Your task to perform on an android device: change notifications settings Image 0: 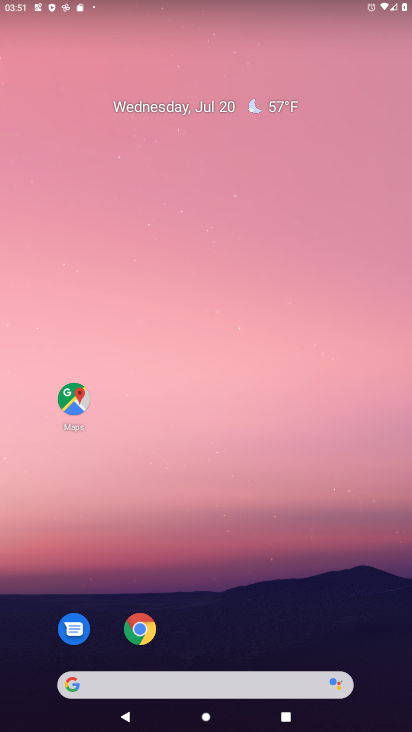
Step 0: drag from (389, 654) to (330, 61)
Your task to perform on an android device: change notifications settings Image 1: 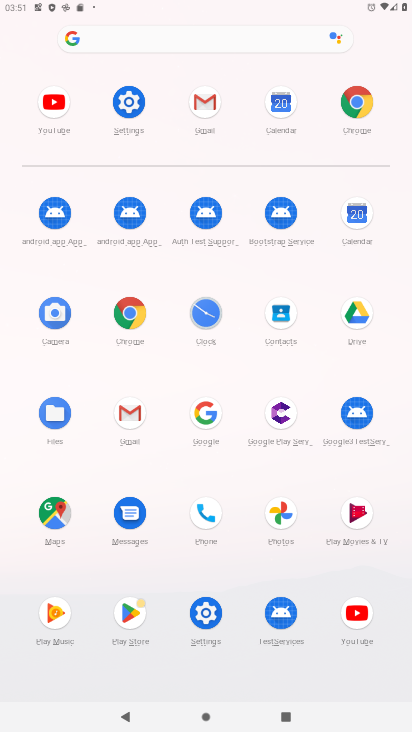
Step 1: click (205, 612)
Your task to perform on an android device: change notifications settings Image 2: 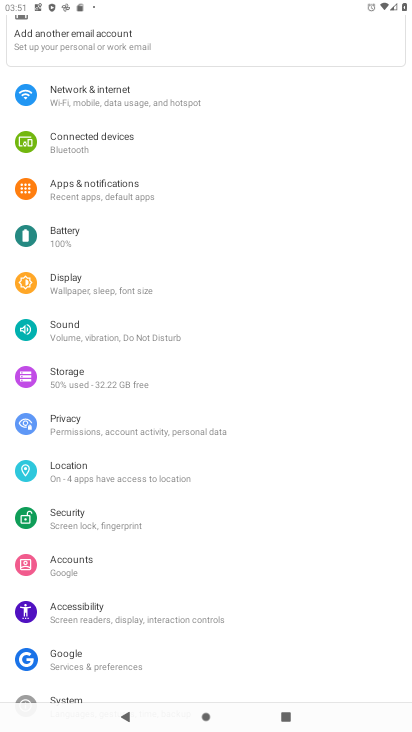
Step 2: click (89, 187)
Your task to perform on an android device: change notifications settings Image 3: 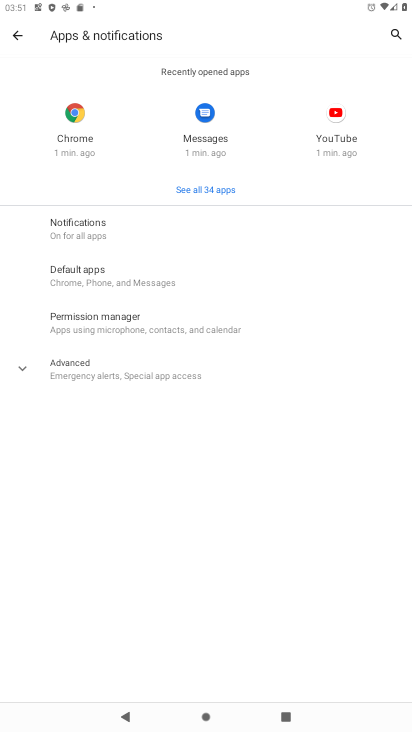
Step 3: click (78, 227)
Your task to perform on an android device: change notifications settings Image 4: 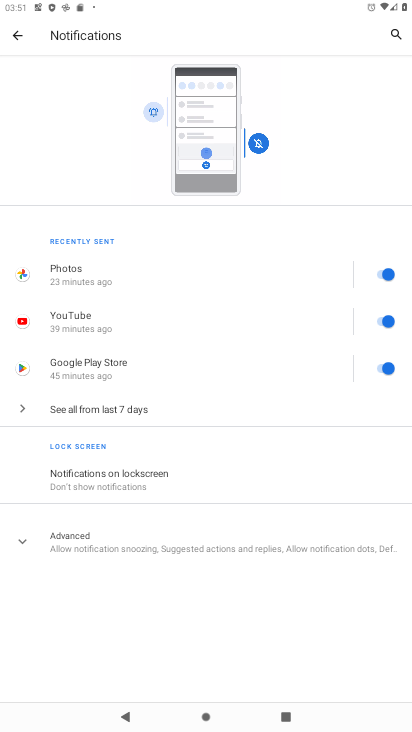
Step 4: click (17, 540)
Your task to perform on an android device: change notifications settings Image 5: 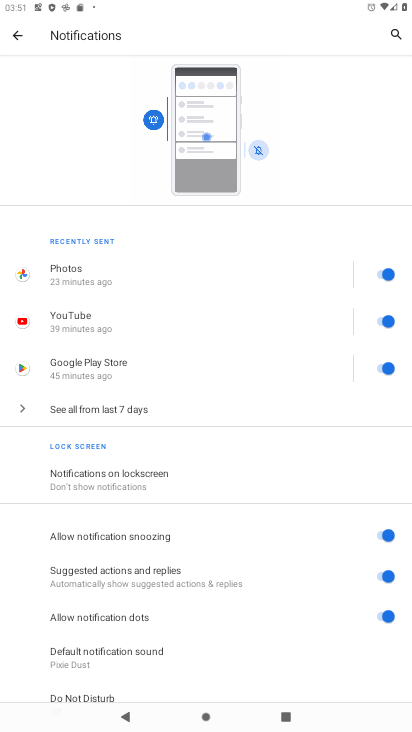
Step 5: drag from (215, 616) to (282, 212)
Your task to perform on an android device: change notifications settings Image 6: 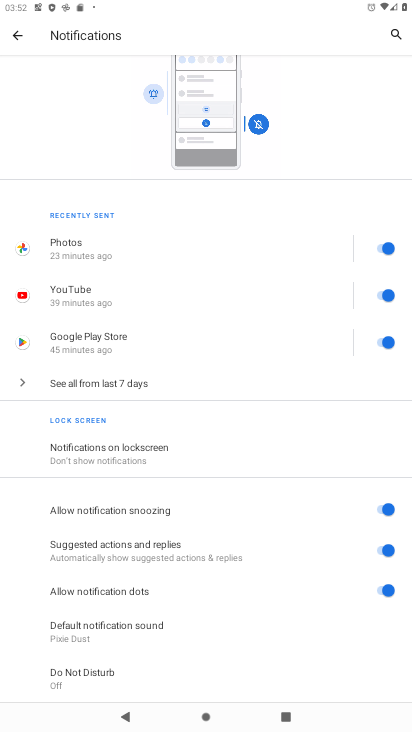
Step 6: click (382, 594)
Your task to perform on an android device: change notifications settings Image 7: 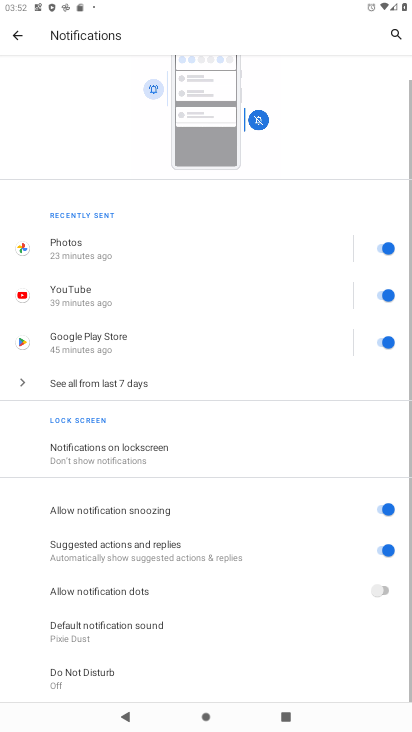
Step 7: click (379, 509)
Your task to perform on an android device: change notifications settings Image 8: 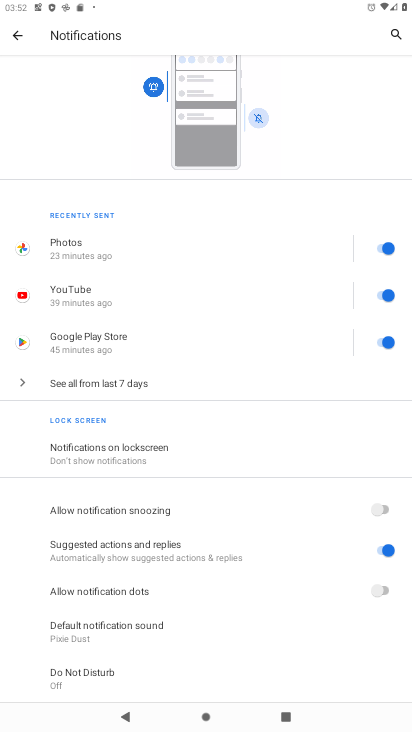
Step 8: task complete